Your task to perform on an android device: Open Maps and search for coffee Image 0: 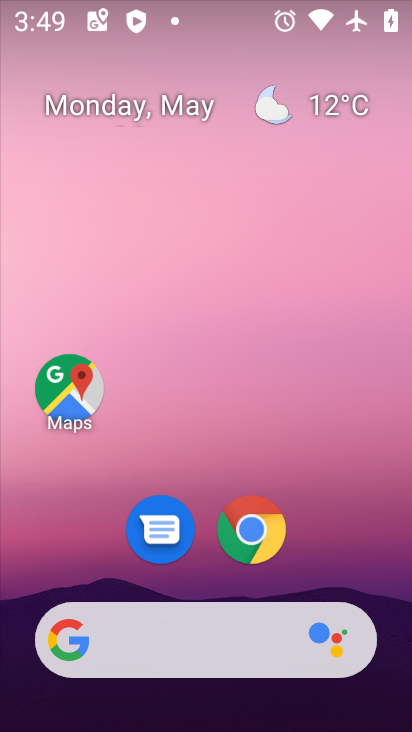
Step 0: drag from (312, 554) to (279, 119)
Your task to perform on an android device: Open Maps and search for coffee Image 1: 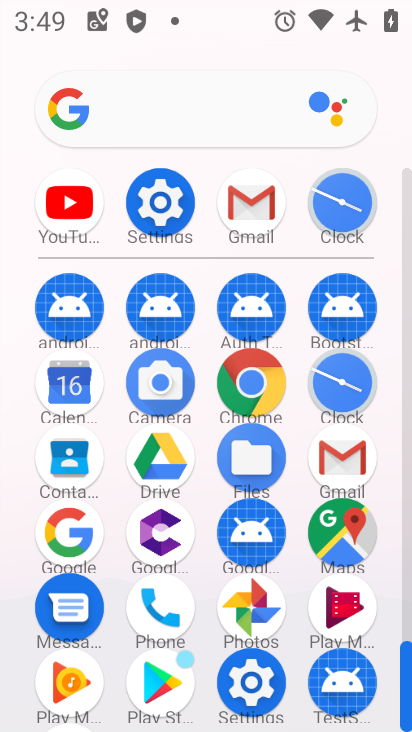
Step 1: click (330, 539)
Your task to perform on an android device: Open Maps and search for coffee Image 2: 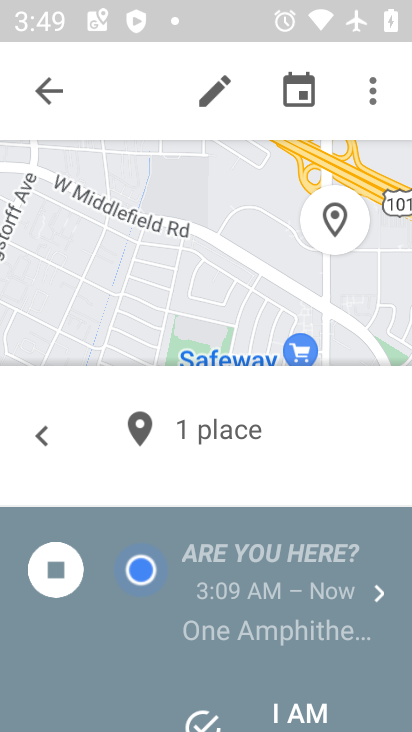
Step 2: click (58, 96)
Your task to perform on an android device: Open Maps and search for coffee Image 3: 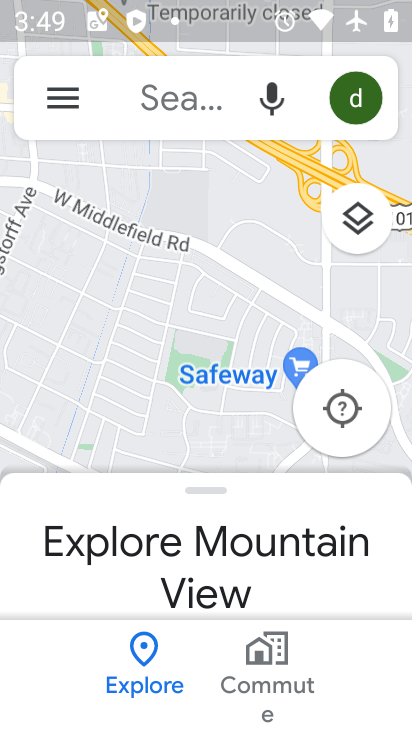
Step 3: click (183, 96)
Your task to perform on an android device: Open Maps and search for coffee Image 4: 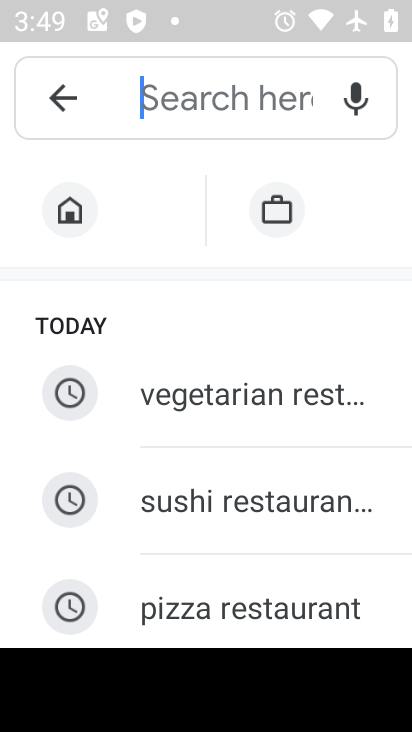
Step 4: type "coffee"
Your task to perform on an android device: Open Maps and search for coffee Image 5: 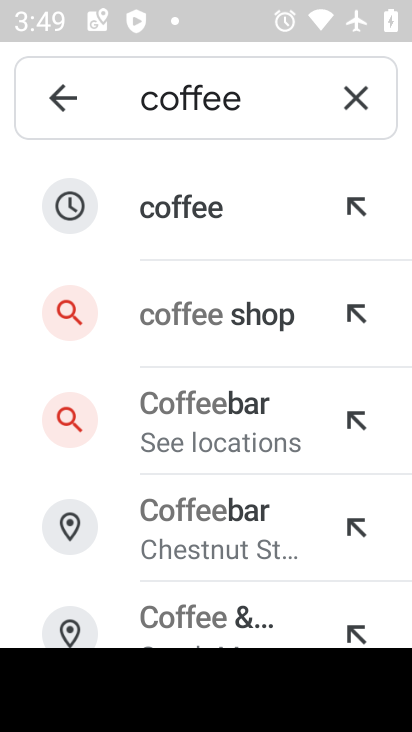
Step 5: click (139, 190)
Your task to perform on an android device: Open Maps and search for coffee Image 6: 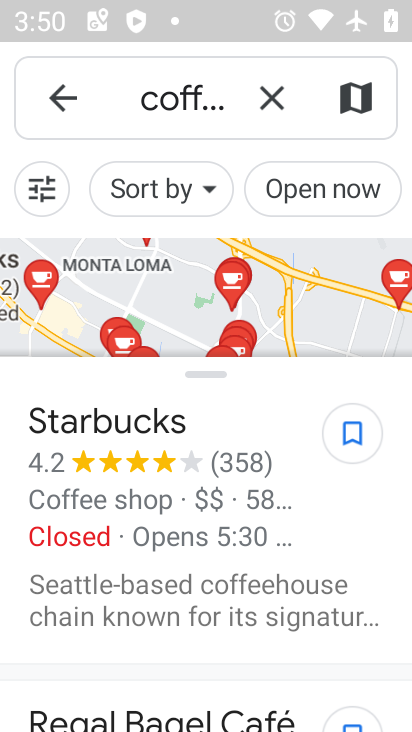
Step 6: task complete